Your task to perform on an android device: Open Android settings Image 0: 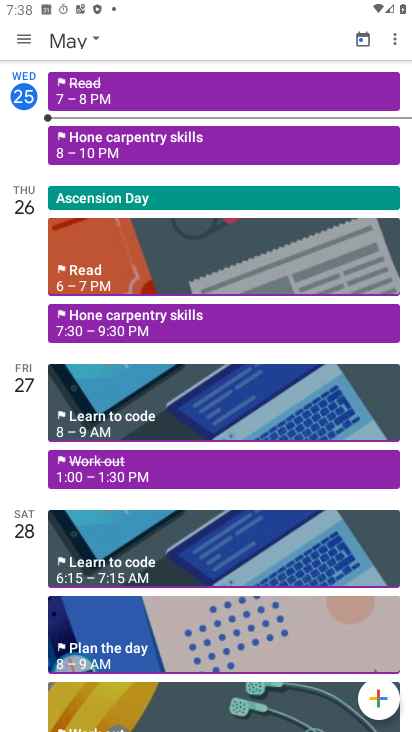
Step 0: press home button
Your task to perform on an android device: Open Android settings Image 1: 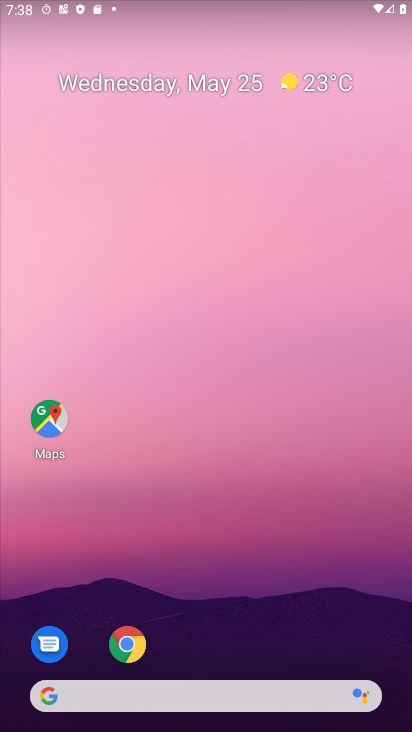
Step 1: drag from (306, 719) to (292, 404)
Your task to perform on an android device: Open Android settings Image 2: 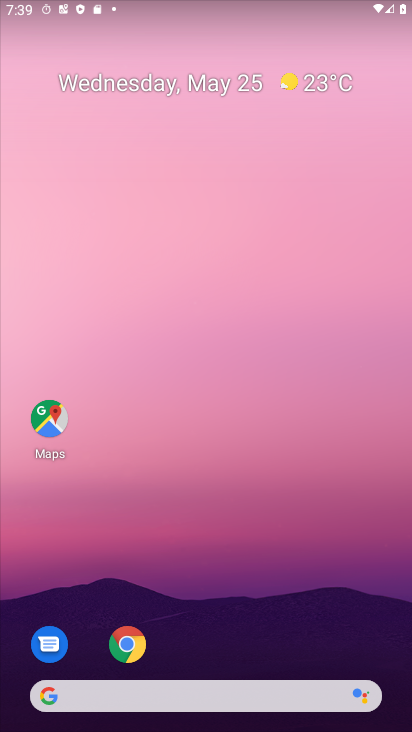
Step 2: drag from (243, 712) to (251, 302)
Your task to perform on an android device: Open Android settings Image 3: 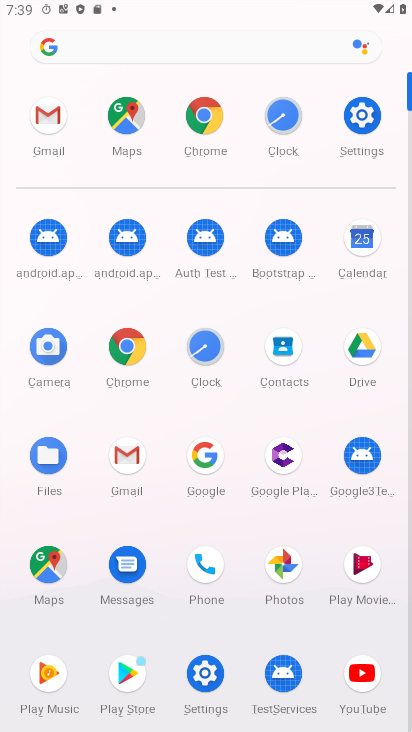
Step 3: click (356, 123)
Your task to perform on an android device: Open Android settings Image 4: 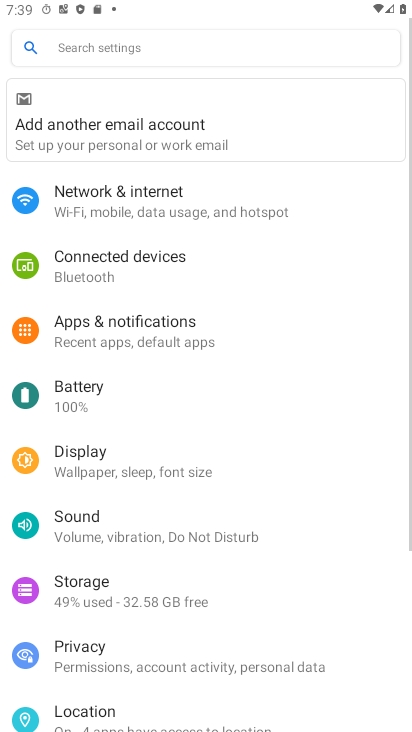
Step 4: click (142, 48)
Your task to perform on an android device: Open Android settings Image 5: 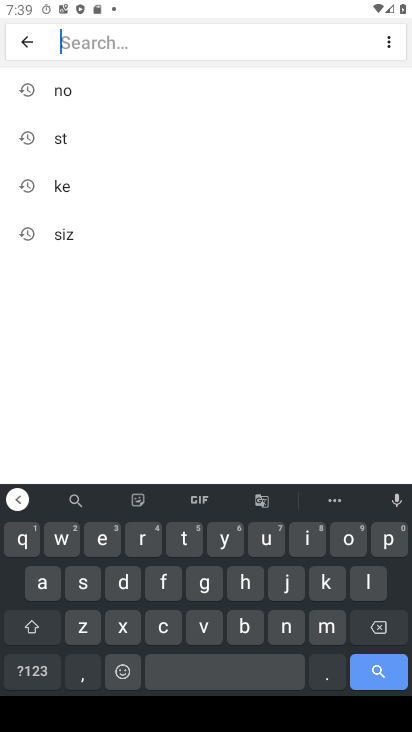
Step 5: click (43, 585)
Your task to perform on an android device: Open Android settings Image 6: 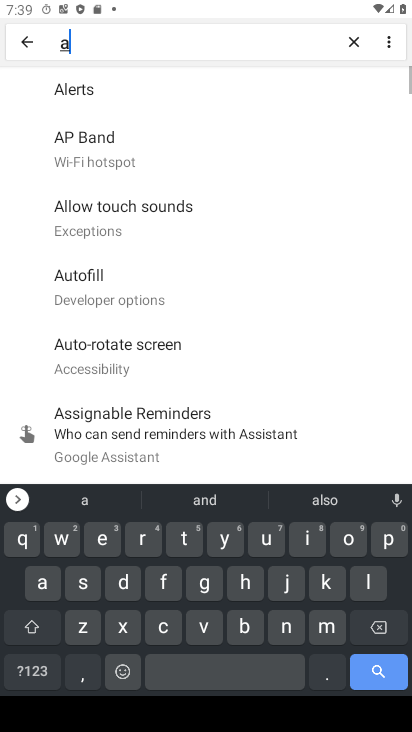
Step 6: click (289, 634)
Your task to perform on an android device: Open Android settings Image 7: 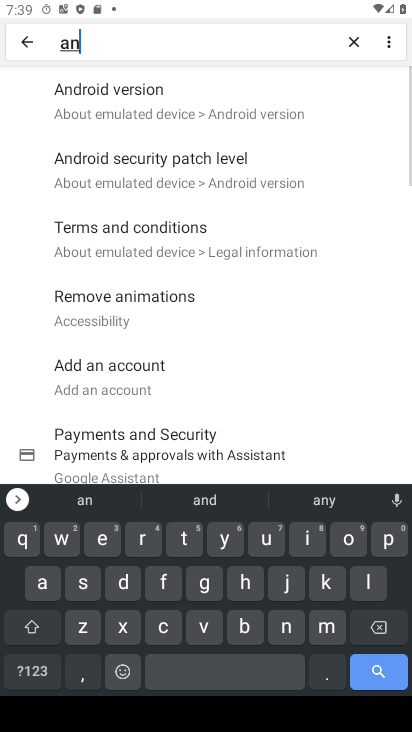
Step 7: click (146, 113)
Your task to perform on an android device: Open Android settings Image 8: 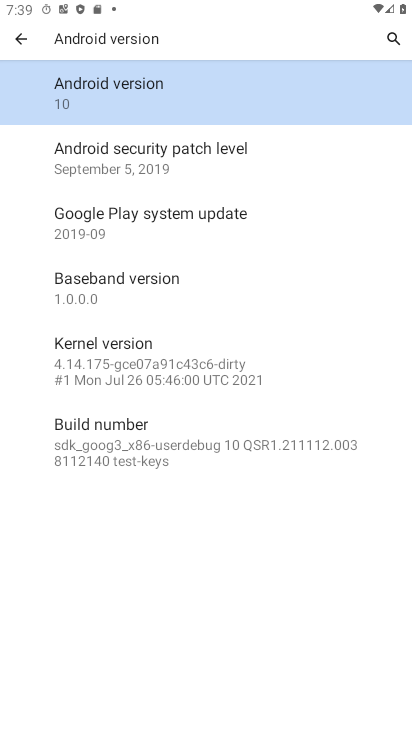
Step 8: task complete